Your task to perform on an android device: Search for pizza restaurants on Maps Image 0: 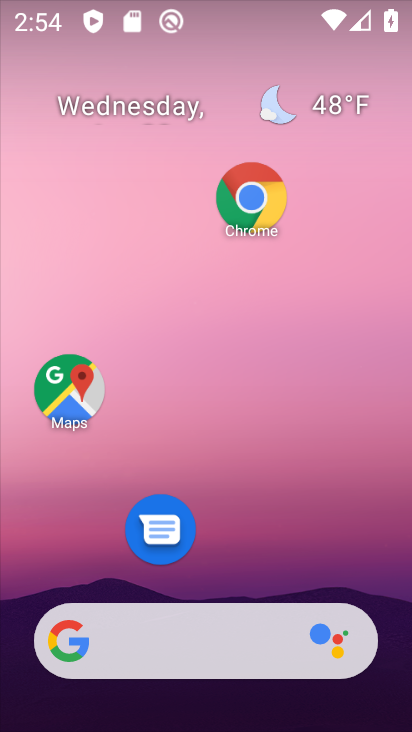
Step 0: click (72, 392)
Your task to perform on an android device: Search for pizza restaurants on Maps Image 1: 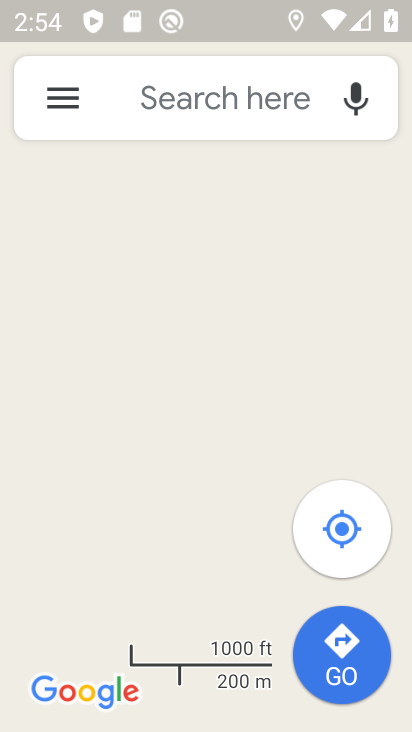
Step 1: click (211, 105)
Your task to perform on an android device: Search for pizza restaurants on Maps Image 2: 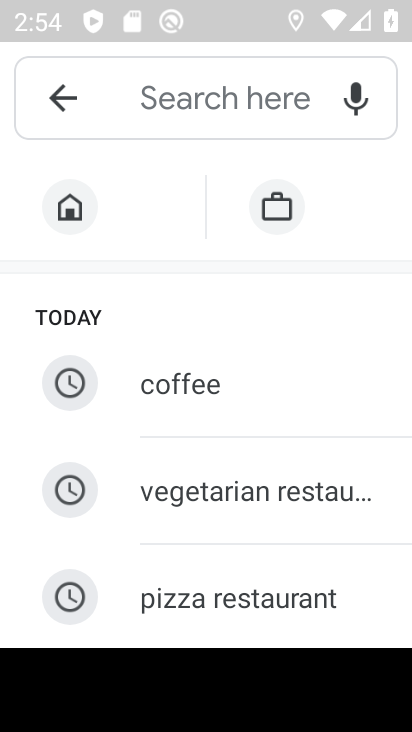
Step 2: type "pizza restaurants"
Your task to perform on an android device: Search for pizza restaurants on Maps Image 3: 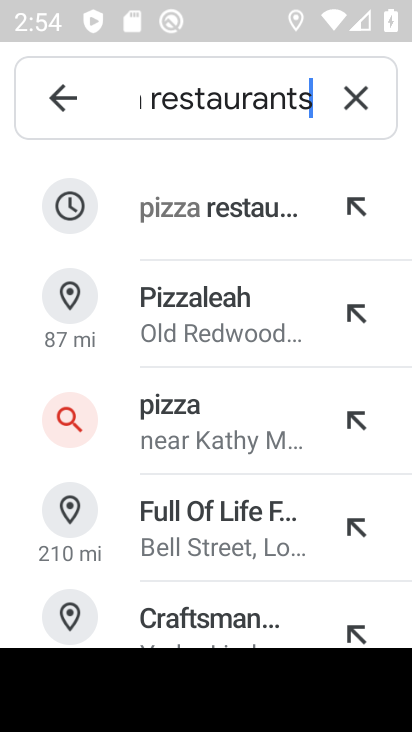
Step 3: click (234, 203)
Your task to perform on an android device: Search for pizza restaurants on Maps Image 4: 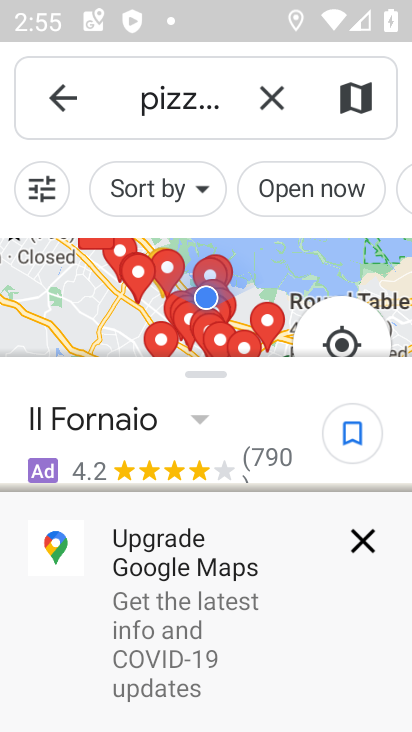
Step 4: task complete